Your task to perform on an android device: Do I have any events this weekend? Image 0: 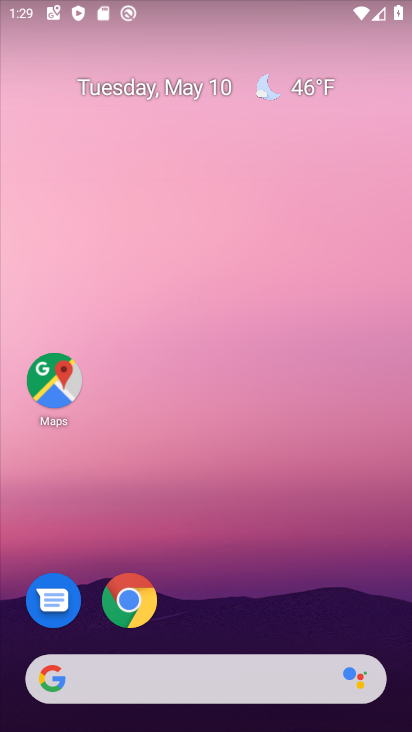
Step 0: press home button
Your task to perform on an android device: Do I have any events this weekend? Image 1: 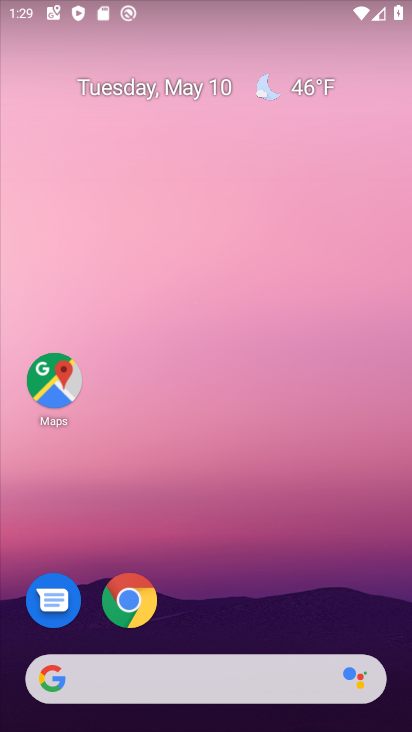
Step 1: drag from (165, 681) to (325, 163)
Your task to perform on an android device: Do I have any events this weekend? Image 2: 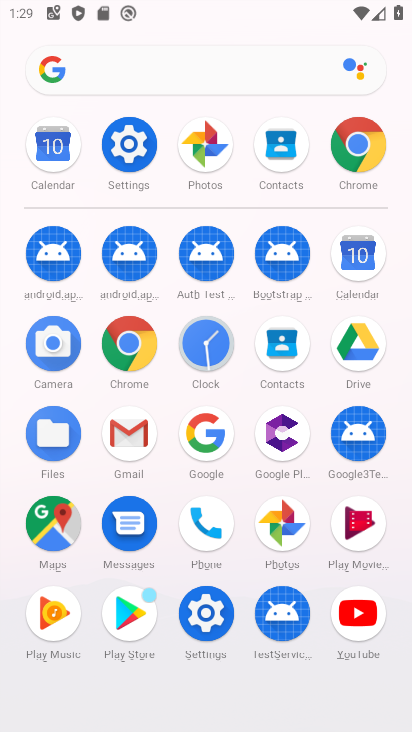
Step 2: click (362, 256)
Your task to perform on an android device: Do I have any events this weekend? Image 3: 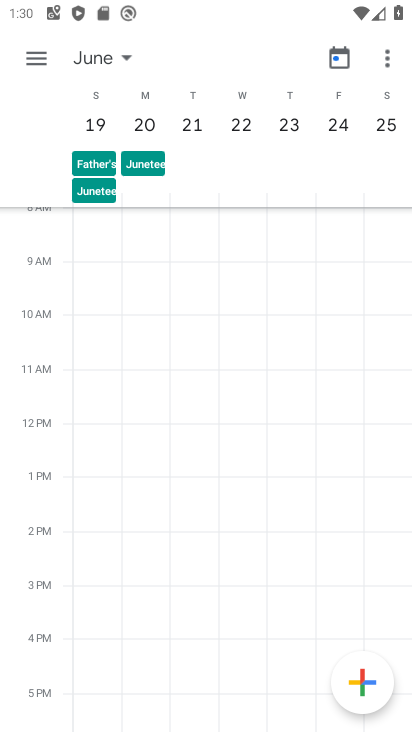
Step 3: click (98, 56)
Your task to perform on an android device: Do I have any events this weekend? Image 4: 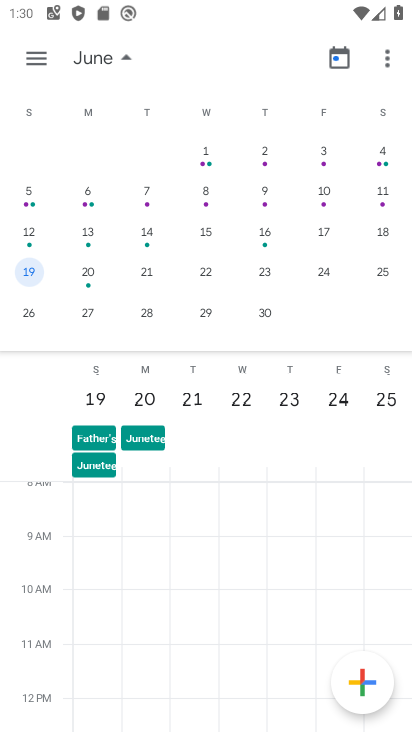
Step 4: drag from (131, 244) to (411, 240)
Your task to perform on an android device: Do I have any events this weekend? Image 5: 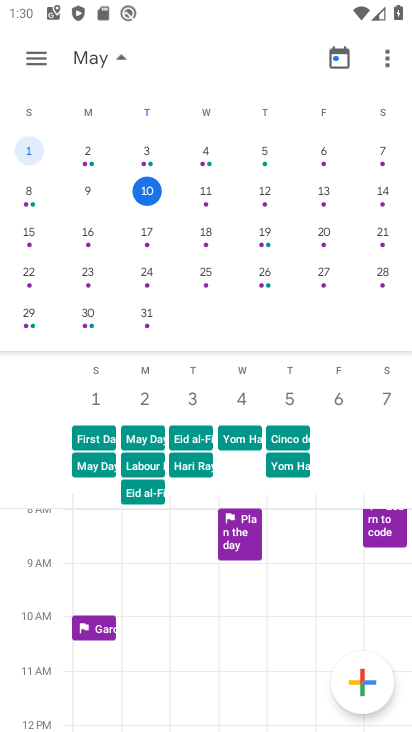
Step 5: click (387, 193)
Your task to perform on an android device: Do I have any events this weekend? Image 6: 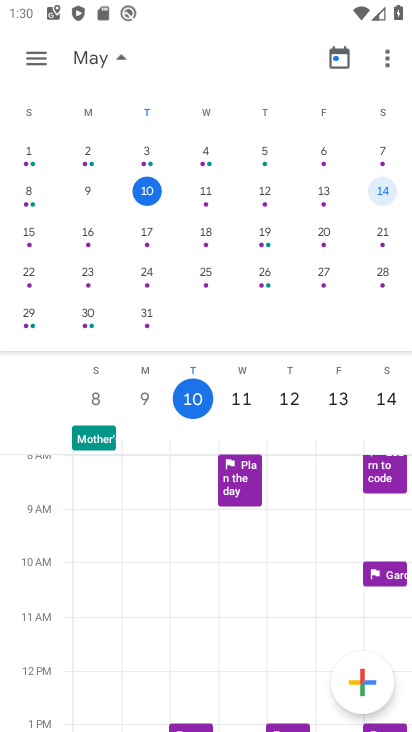
Step 6: click (38, 64)
Your task to perform on an android device: Do I have any events this weekend? Image 7: 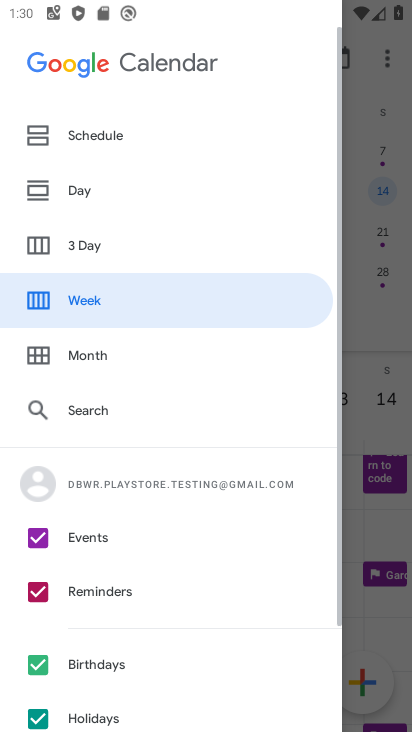
Step 7: click (80, 192)
Your task to perform on an android device: Do I have any events this weekend? Image 8: 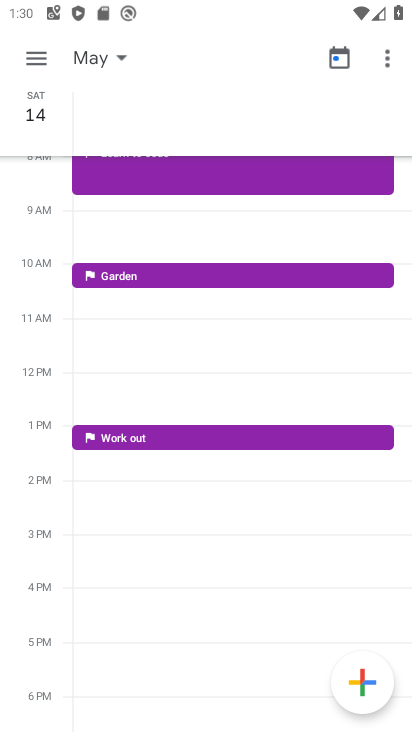
Step 8: click (96, 275)
Your task to perform on an android device: Do I have any events this weekend? Image 9: 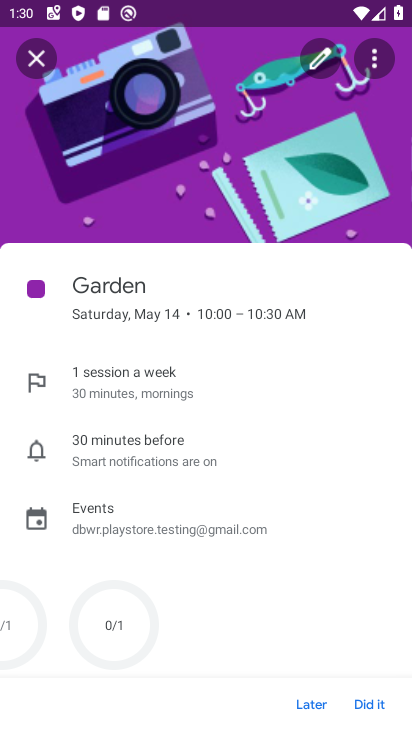
Step 9: task complete